Your task to perform on an android device: Go to Android settings Image 0: 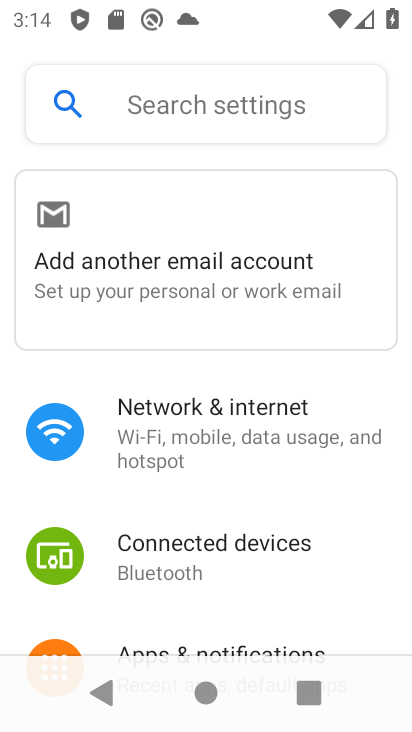
Step 0: press home button
Your task to perform on an android device: Go to Android settings Image 1: 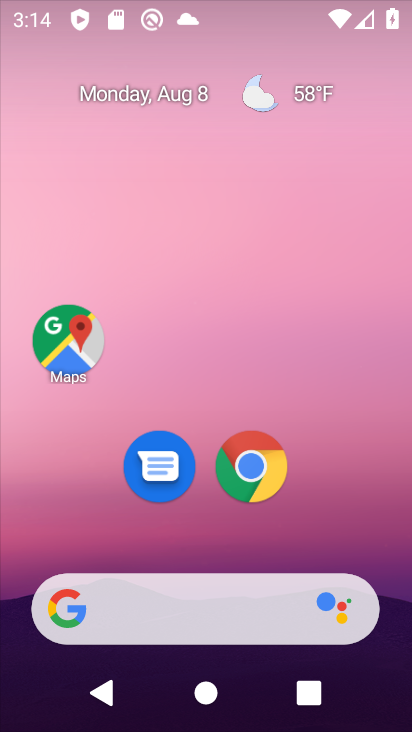
Step 1: drag from (237, 557) to (273, 162)
Your task to perform on an android device: Go to Android settings Image 2: 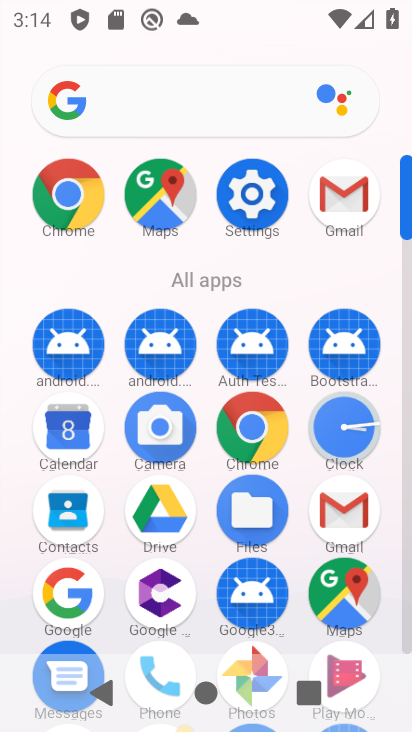
Step 2: click (240, 179)
Your task to perform on an android device: Go to Android settings Image 3: 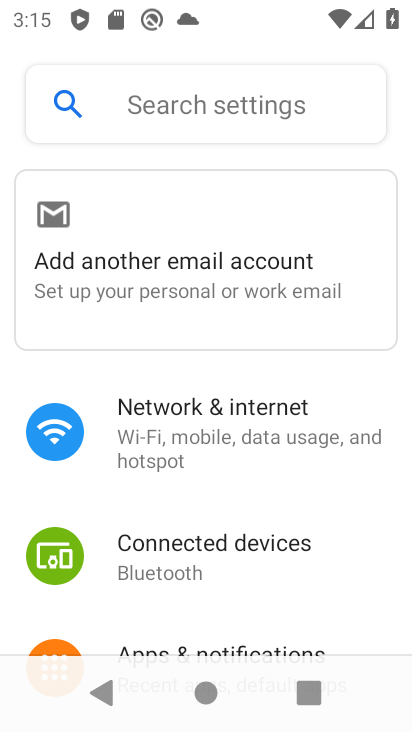
Step 3: task complete